Your task to perform on an android device: check battery use Image 0: 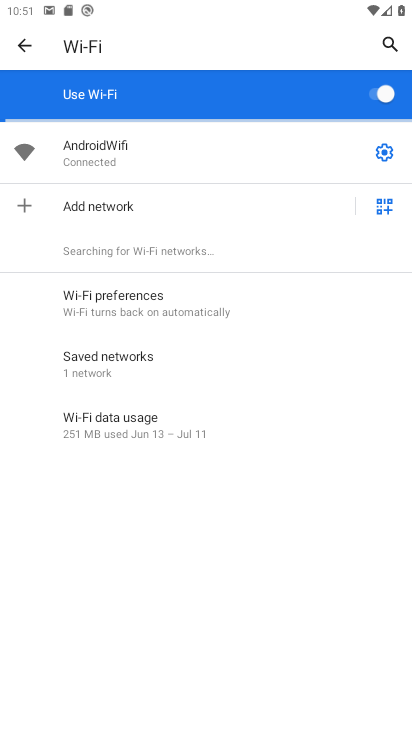
Step 0: press home button
Your task to perform on an android device: check battery use Image 1: 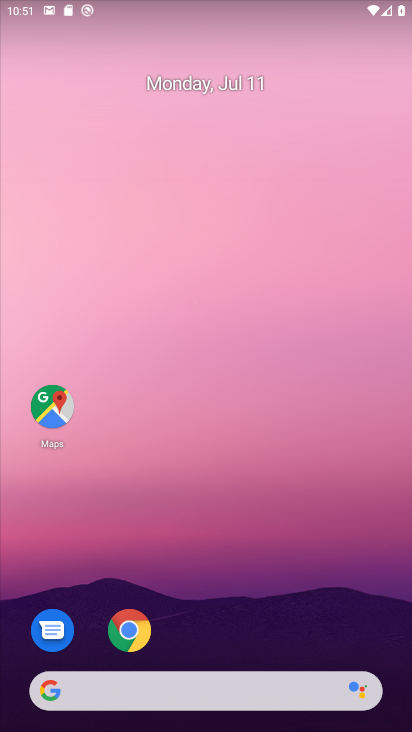
Step 1: drag from (249, 683) to (246, 13)
Your task to perform on an android device: check battery use Image 2: 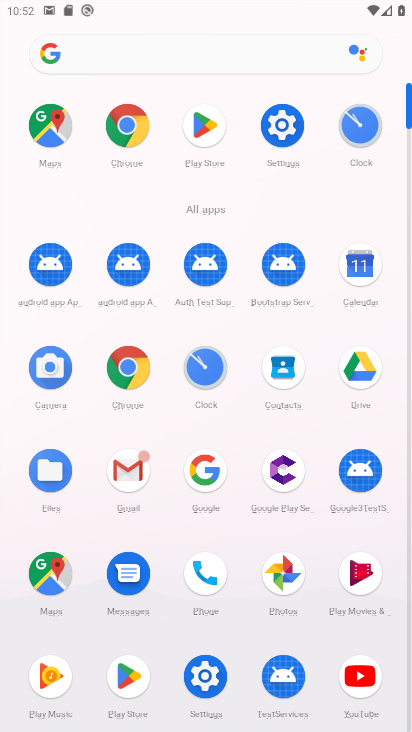
Step 2: click (289, 132)
Your task to perform on an android device: check battery use Image 3: 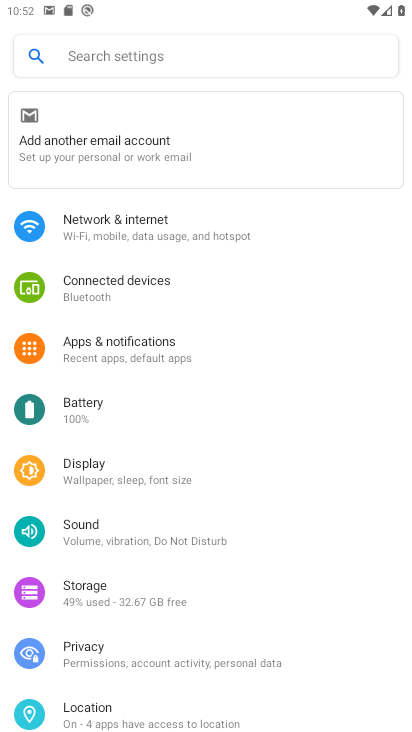
Step 3: click (128, 385)
Your task to perform on an android device: check battery use Image 4: 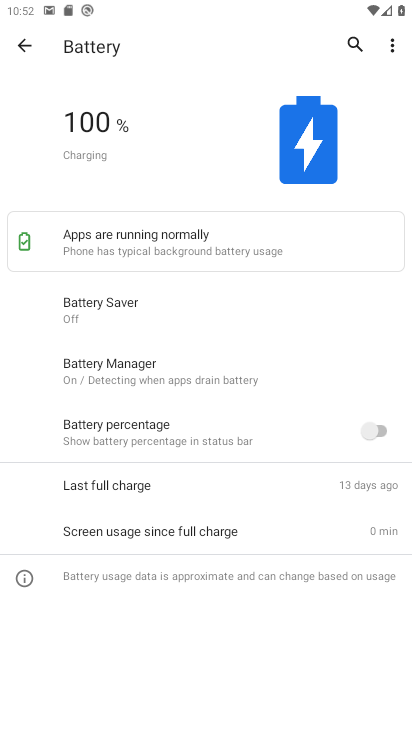
Step 4: task complete